Your task to perform on an android device: Open notification settings Image 0: 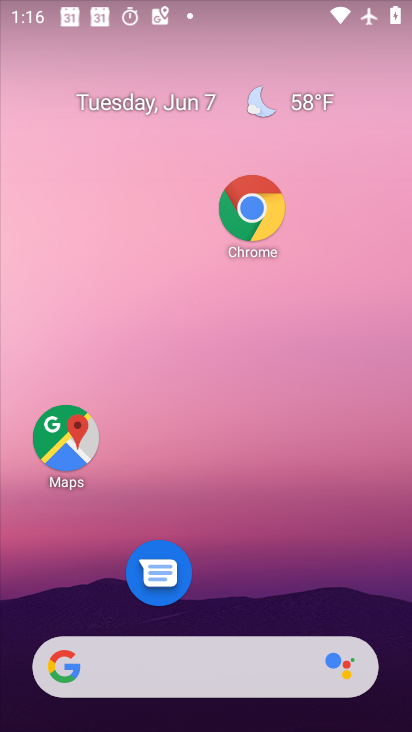
Step 0: drag from (215, 539) to (185, 68)
Your task to perform on an android device: Open notification settings Image 1: 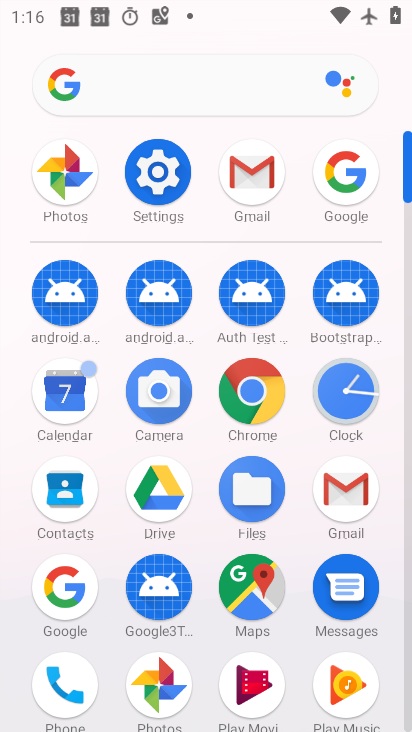
Step 1: click (169, 155)
Your task to perform on an android device: Open notification settings Image 2: 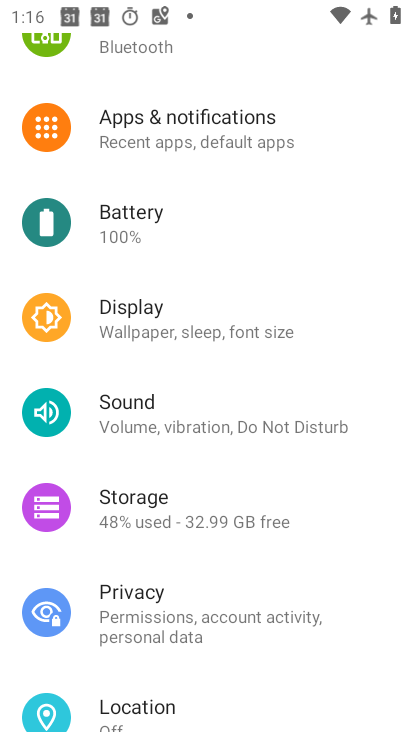
Step 2: click (212, 153)
Your task to perform on an android device: Open notification settings Image 3: 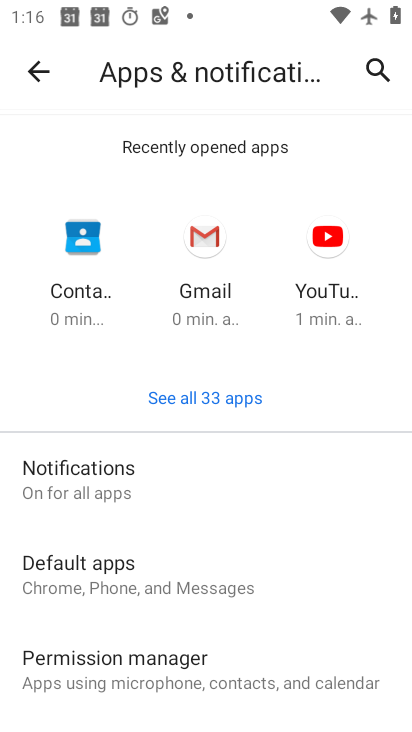
Step 3: click (97, 465)
Your task to perform on an android device: Open notification settings Image 4: 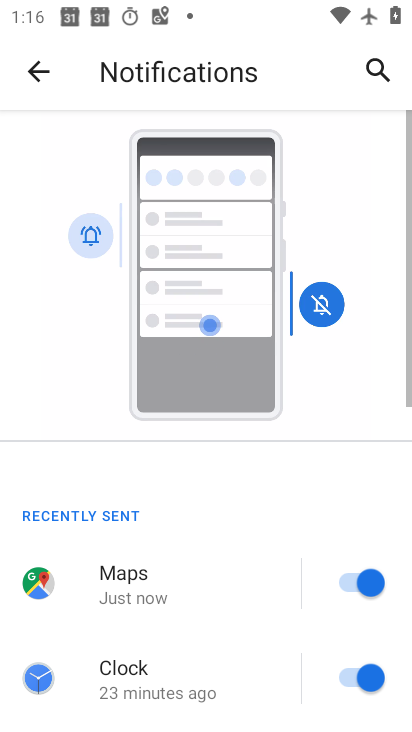
Step 4: task complete